Your task to perform on an android device: Open eBay Image 0: 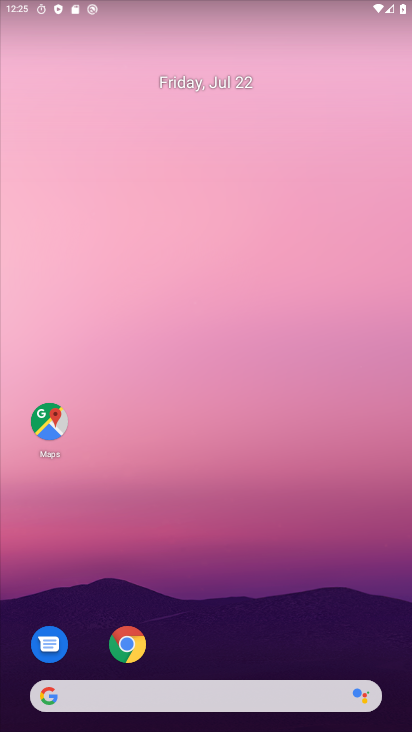
Step 0: drag from (198, 680) to (309, 45)
Your task to perform on an android device: Open eBay Image 1: 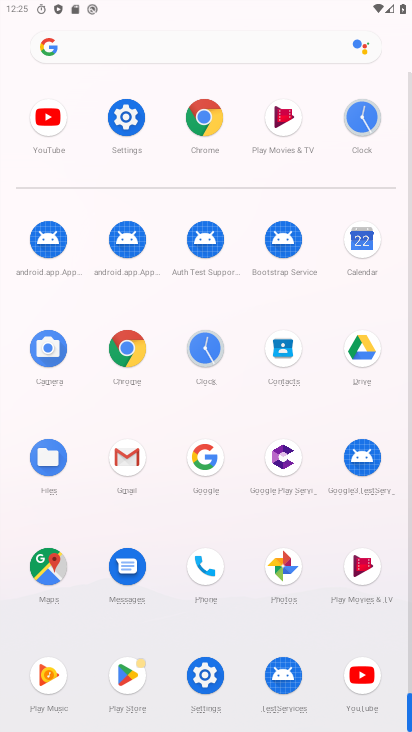
Step 1: click (193, 129)
Your task to perform on an android device: Open eBay Image 2: 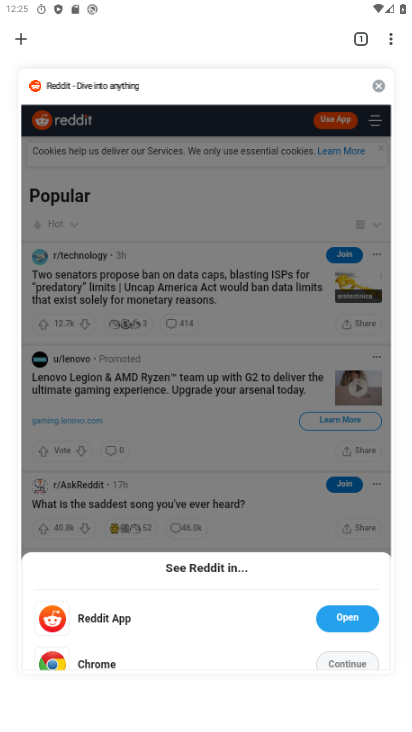
Step 2: click (24, 39)
Your task to perform on an android device: Open eBay Image 3: 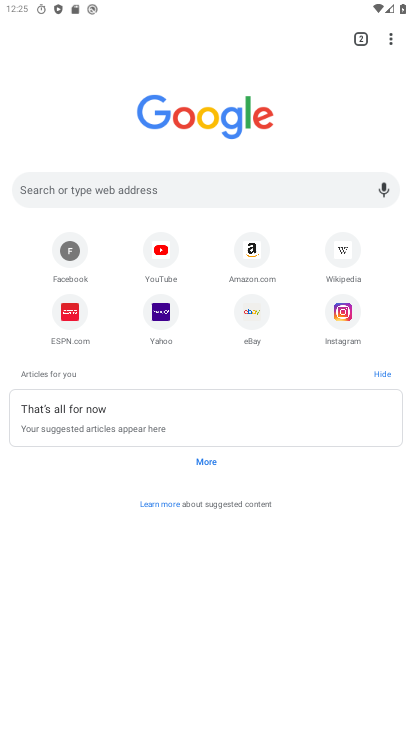
Step 3: click (160, 197)
Your task to perform on an android device: Open eBay Image 4: 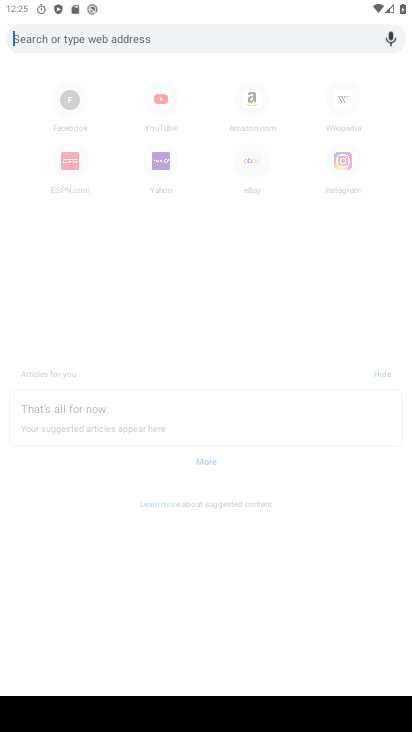
Step 4: type "ebay"
Your task to perform on an android device: Open eBay Image 5: 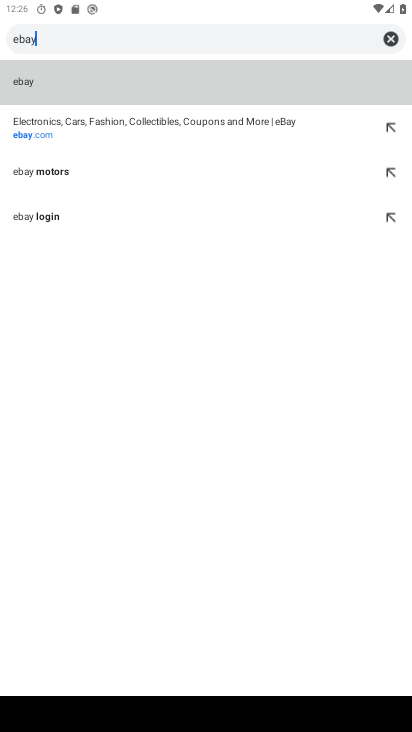
Step 5: click (153, 126)
Your task to perform on an android device: Open eBay Image 6: 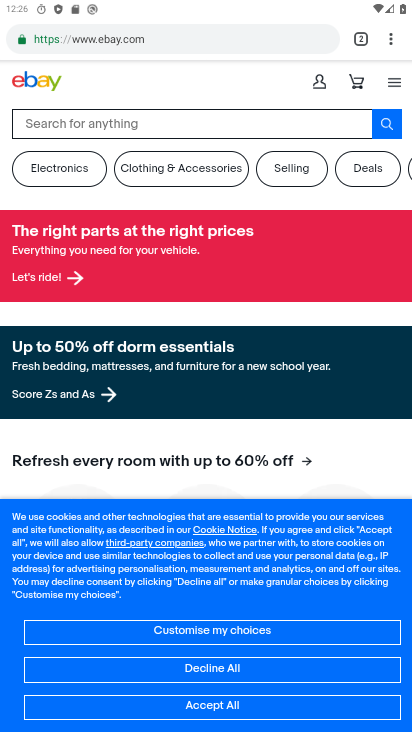
Step 6: task complete